Your task to perform on an android device: Go to accessibility settings Image 0: 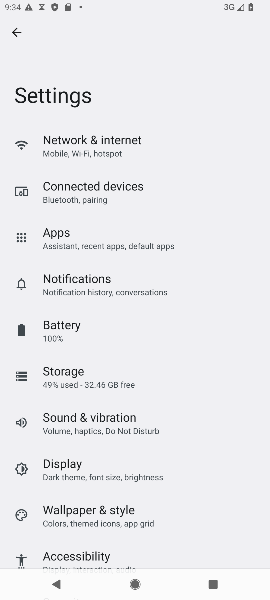
Step 0: click (228, 558)
Your task to perform on an android device: Go to accessibility settings Image 1: 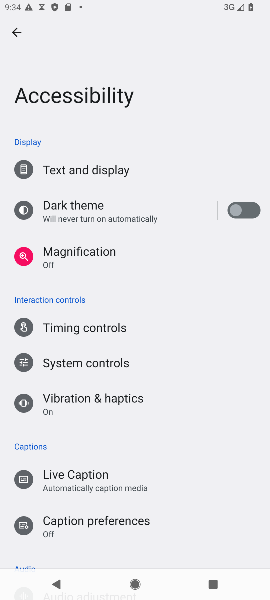
Step 1: task complete